Your task to perform on an android device: What's on my calendar tomorrow? Image 0: 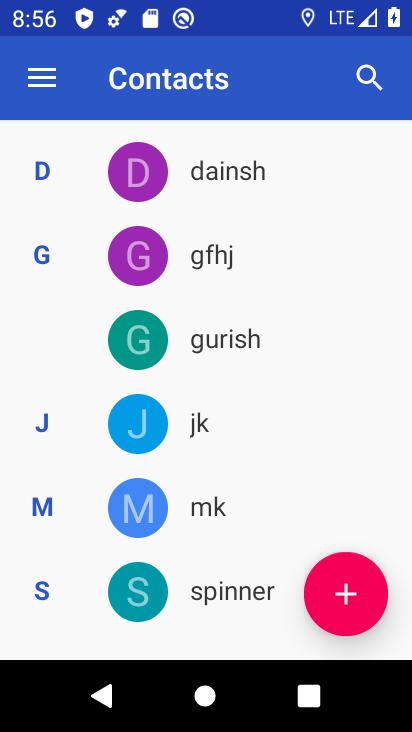
Step 0: press back button
Your task to perform on an android device: What's on my calendar tomorrow? Image 1: 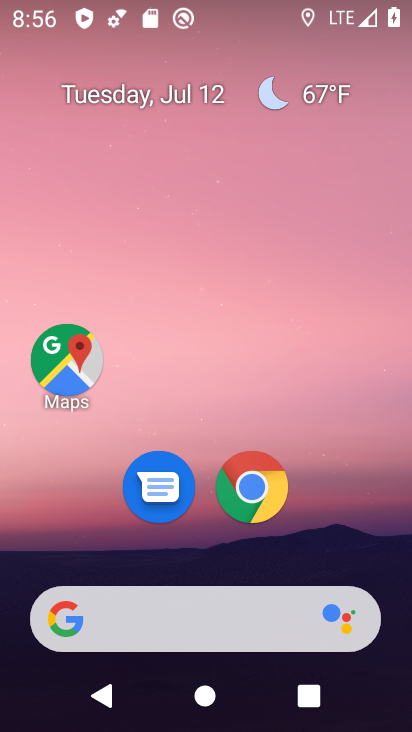
Step 1: drag from (179, 549) to (217, 13)
Your task to perform on an android device: What's on my calendar tomorrow? Image 2: 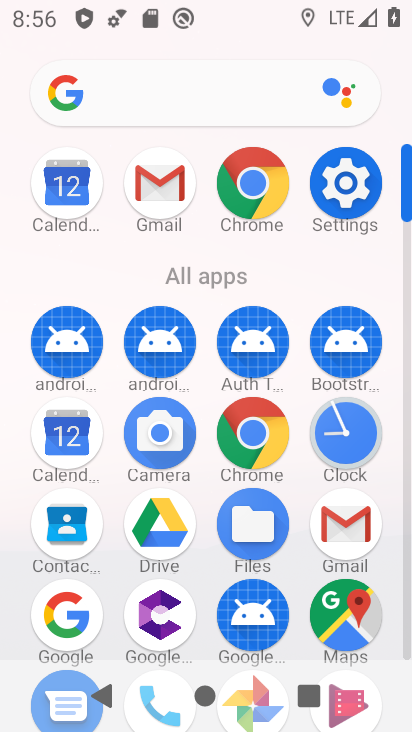
Step 2: click (74, 449)
Your task to perform on an android device: What's on my calendar tomorrow? Image 3: 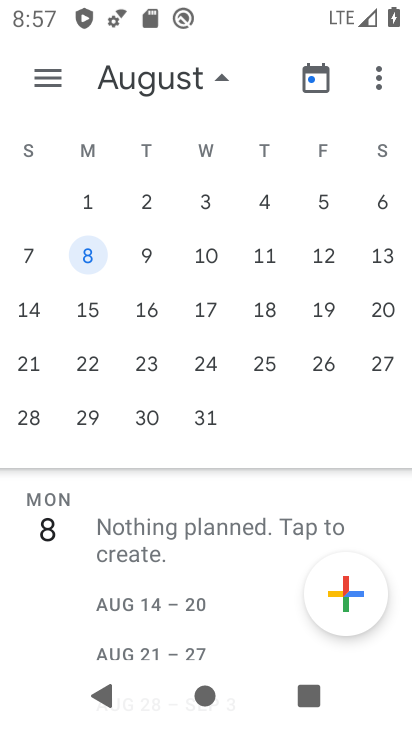
Step 3: drag from (45, 311) to (388, 316)
Your task to perform on an android device: What's on my calendar tomorrow? Image 4: 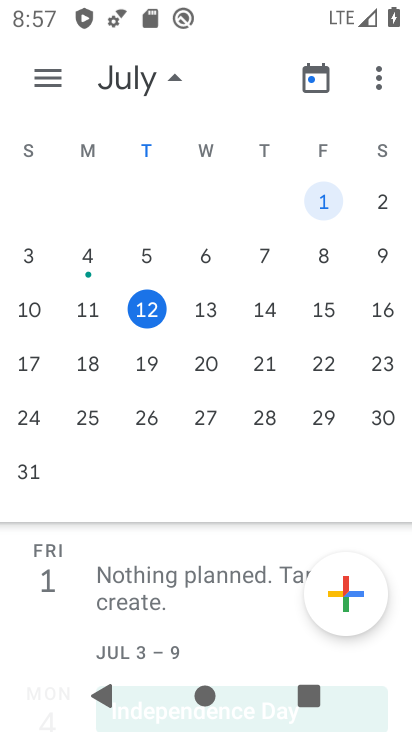
Step 4: click (192, 302)
Your task to perform on an android device: What's on my calendar tomorrow? Image 5: 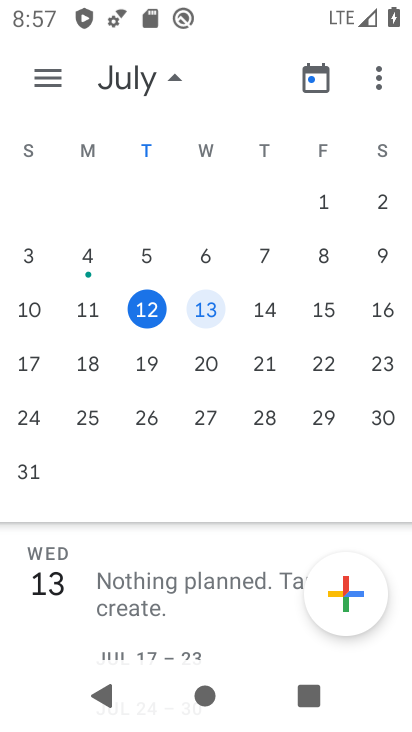
Step 5: task complete